Your task to perform on an android device: turn off javascript in the chrome app Image 0: 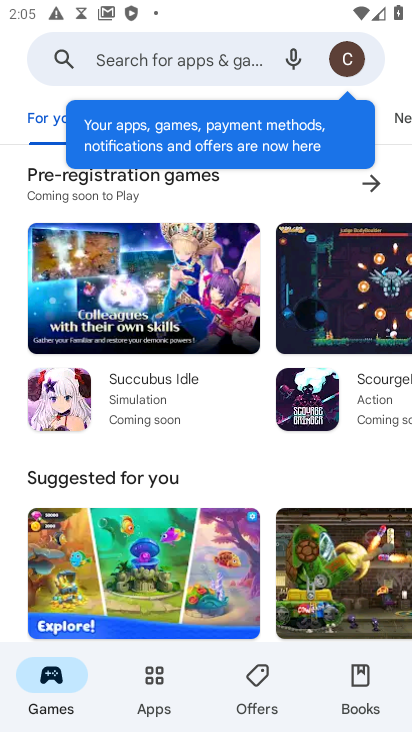
Step 0: press home button
Your task to perform on an android device: turn off javascript in the chrome app Image 1: 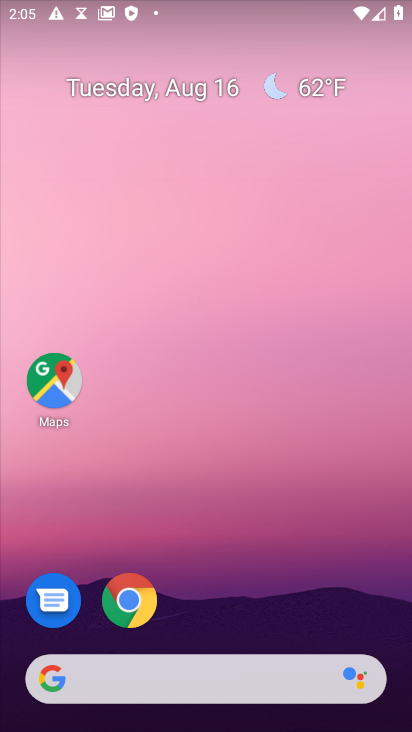
Step 1: click (128, 600)
Your task to perform on an android device: turn off javascript in the chrome app Image 2: 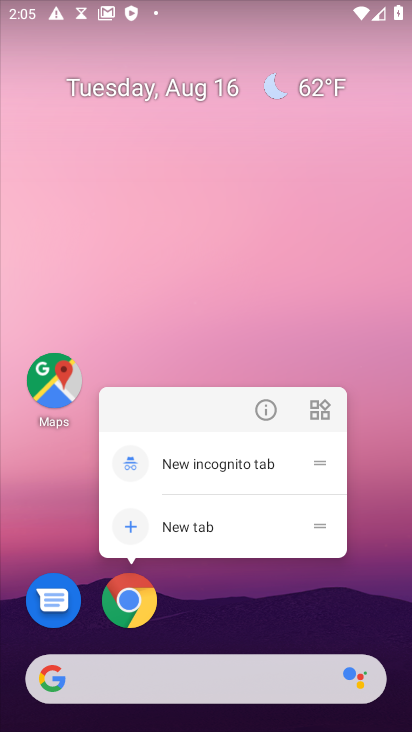
Step 2: click (142, 594)
Your task to perform on an android device: turn off javascript in the chrome app Image 3: 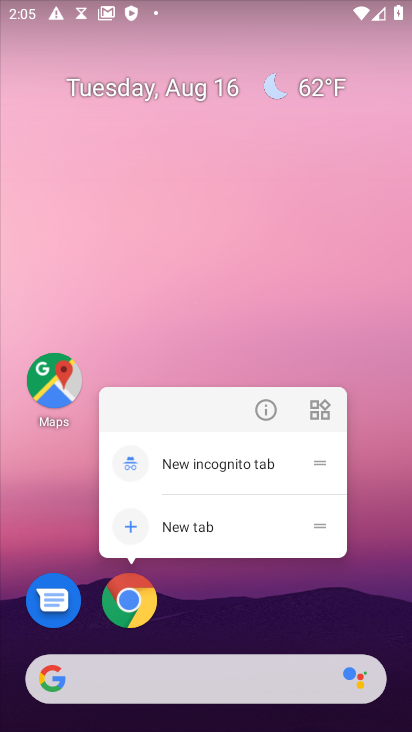
Step 3: click (142, 594)
Your task to perform on an android device: turn off javascript in the chrome app Image 4: 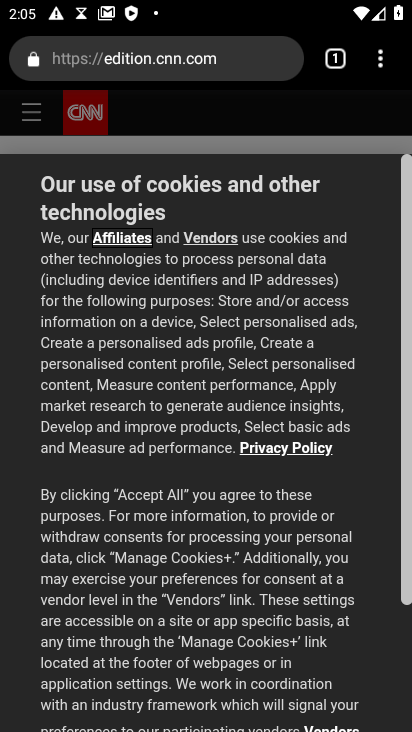
Step 4: drag from (385, 69) to (170, 627)
Your task to perform on an android device: turn off javascript in the chrome app Image 5: 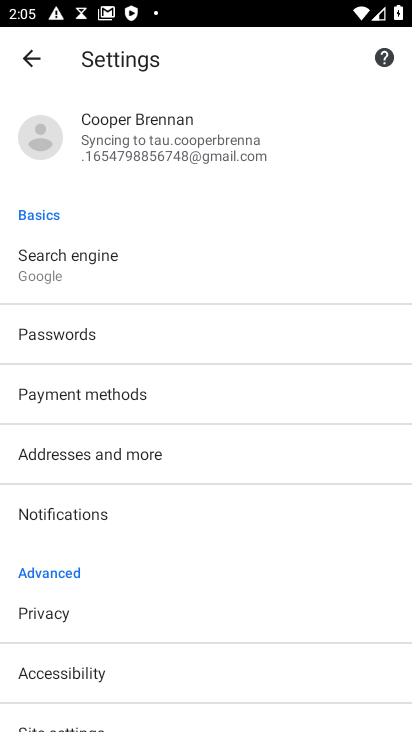
Step 5: drag from (82, 605) to (92, 200)
Your task to perform on an android device: turn off javascript in the chrome app Image 6: 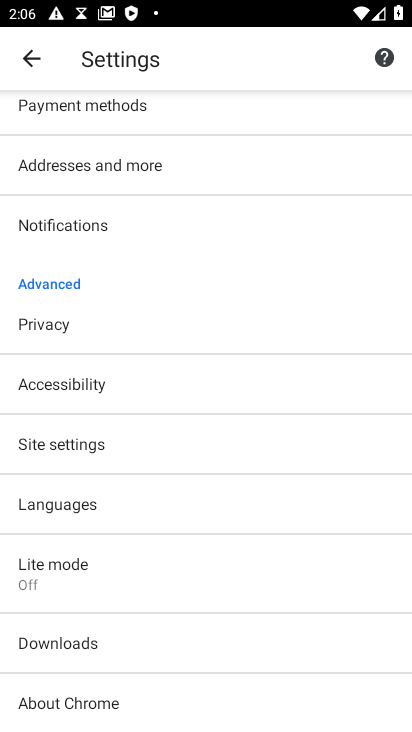
Step 6: click (102, 451)
Your task to perform on an android device: turn off javascript in the chrome app Image 7: 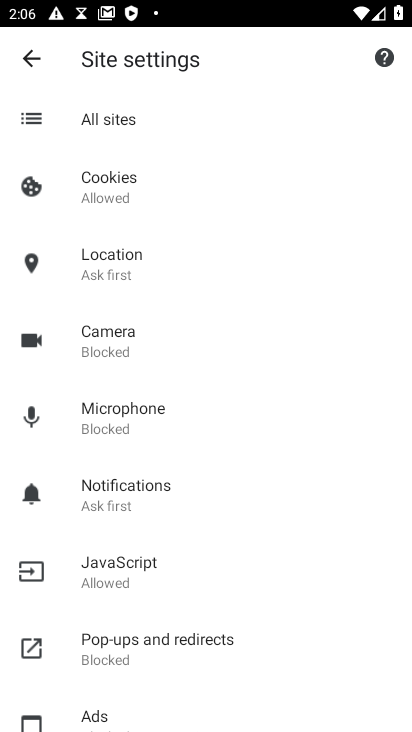
Step 7: click (131, 566)
Your task to perform on an android device: turn off javascript in the chrome app Image 8: 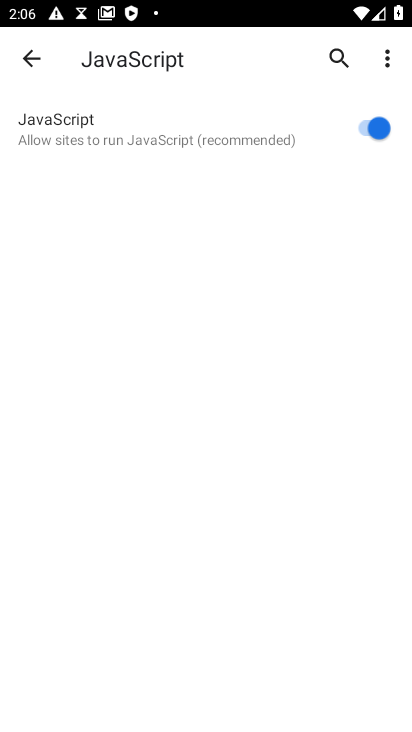
Step 8: click (369, 138)
Your task to perform on an android device: turn off javascript in the chrome app Image 9: 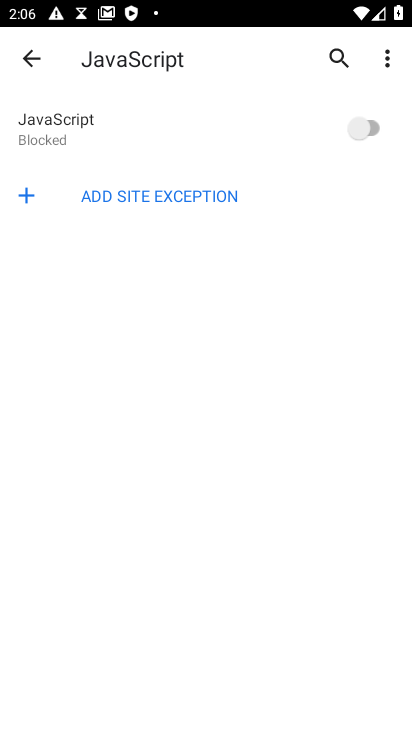
Step 9: task complete